Your task to perform on an android device: Go to sound settings Image 0: 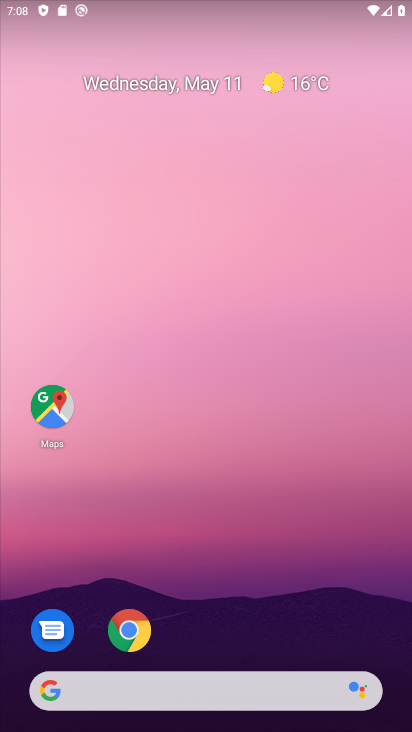
Step 0: drag from (321, 582) to (351, 80)
Your task to perform on an android device: Go to sound settings Image 1: 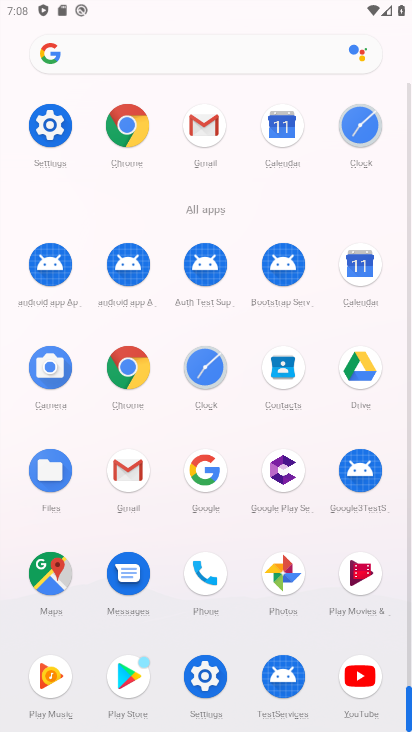
Step 1: click (58, 127)
Your task to perform on an android device: Go to sound settings Image 2: 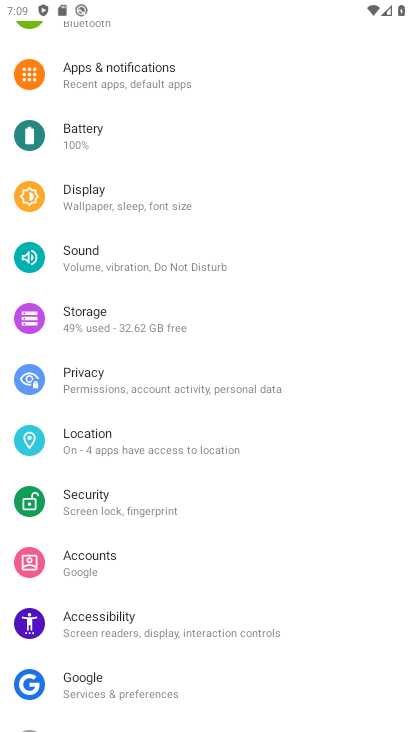
Step 2: drag from (168, 604) to (223, 117)
Your task to perform on an android device: Go to sound settings Image 3: 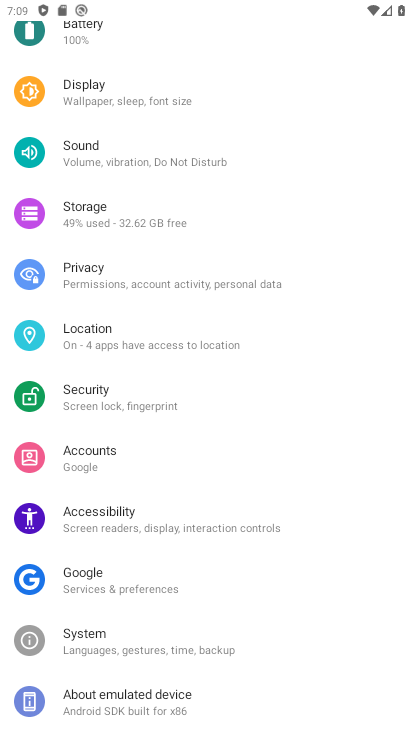
Step 3: drag from (225, 124) to (231, 677)
Your task to perform on an android device: Go to sound settings Image 4: 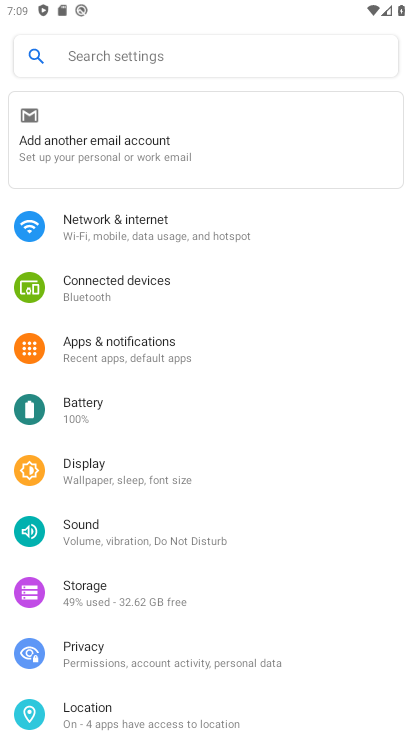
Step 4: click (67, 533)
Your task to perform on an android device: Go to sound settings Image 5: 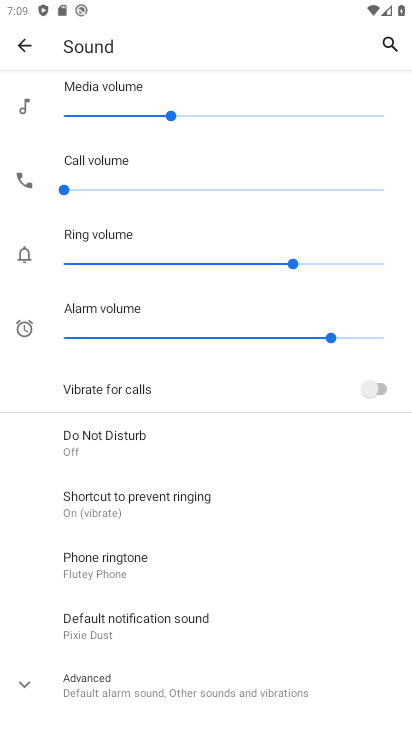
Step 5: task complete